Your task to perform on an android device: Open Maps and search for coffee Image 0: 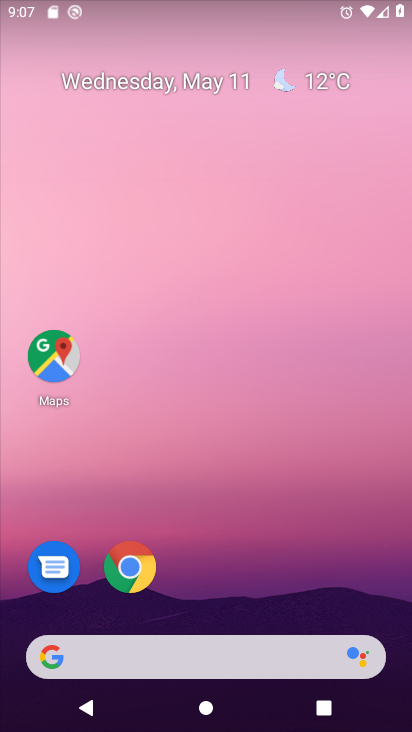
Step 0: click (145, 563)
Your task to perform on an android device: Open Maps and search for coffee Image 1: 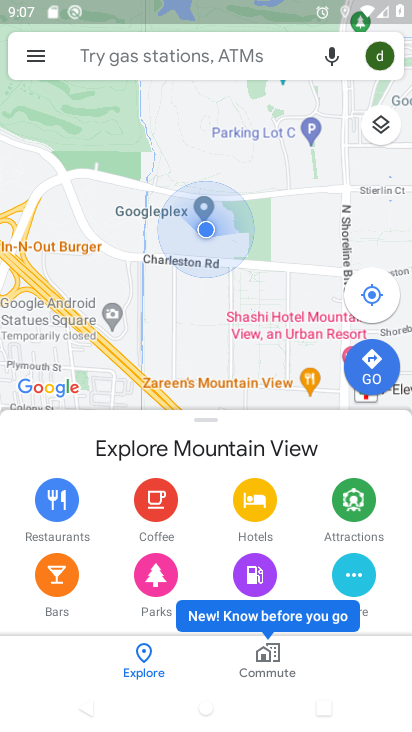
Step 1: click (146, 49)
Your task to perform on an android device: Open Maps and search for coffee Image 2: 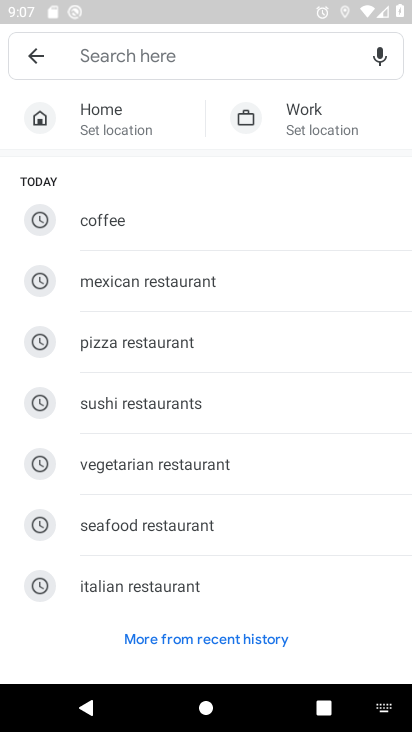
Step 2: click (181, 221)
Your task to perform on an android device: Open Maps and search for coffee Image 3: 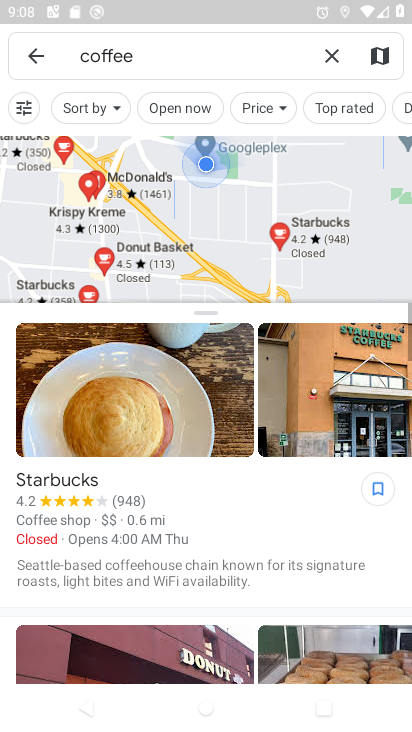
Step 3: task complete